Your task to perform on an android device: check the backup settings in the google photos Image 0: 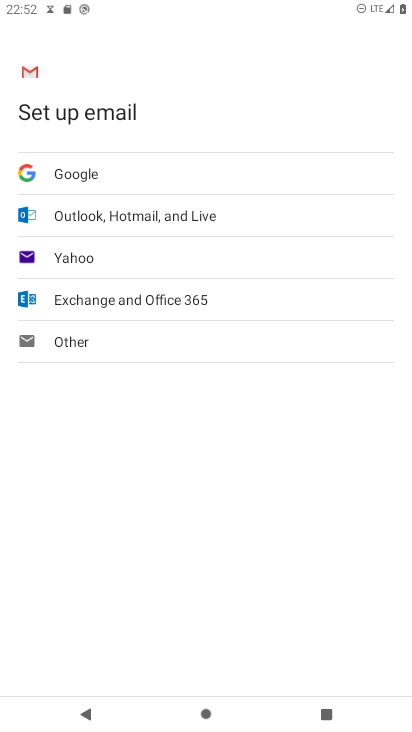
Step 0: press home button
Your task to perform on an android device: check the backup settings in the google photos Image 1: 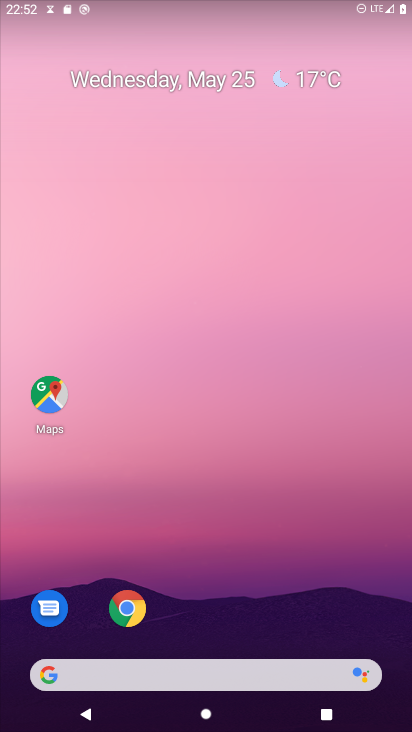
Step 1: drag from (318, 549) to (202, 46)
Your task to perform on an android device: check the backup settings in the google photos Image 2: 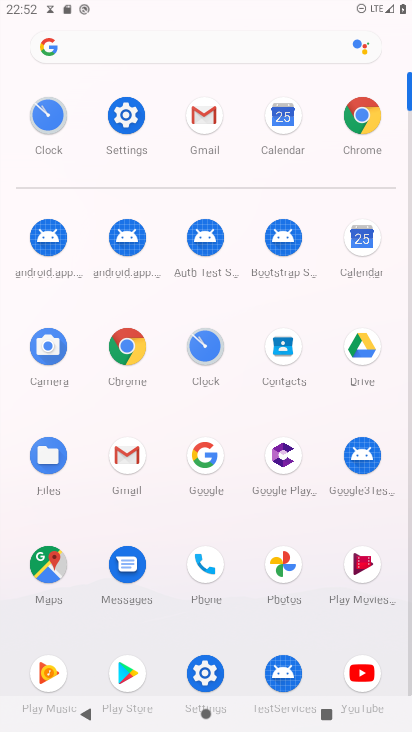
Step 2: click (281, 553)
Your task to perform on an android device: check the backup settings in the google photos Image 3: 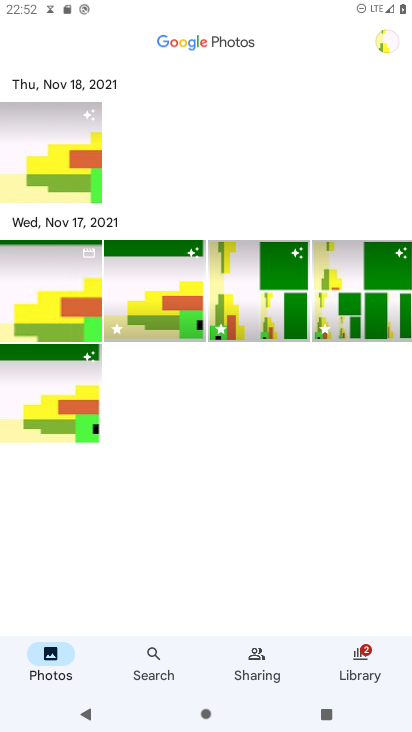
Step 3: click (390, 41)
Your task to perform on an android device: check the backup settings in the google photos Image 4: 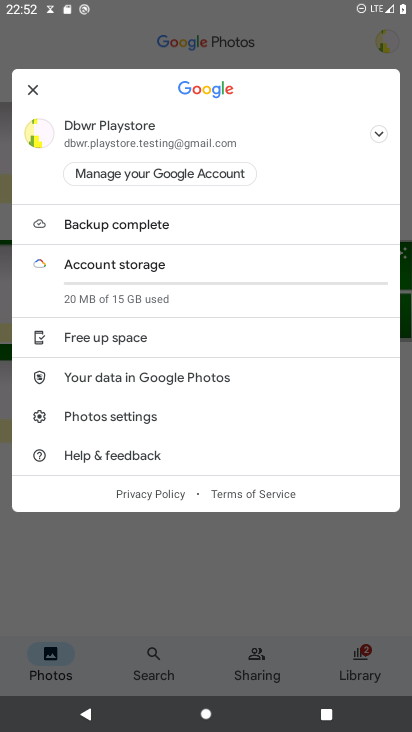
Step 4: click (140, 421)
Your task to perform on an android device: check the backup settings in the google photos Image 5: 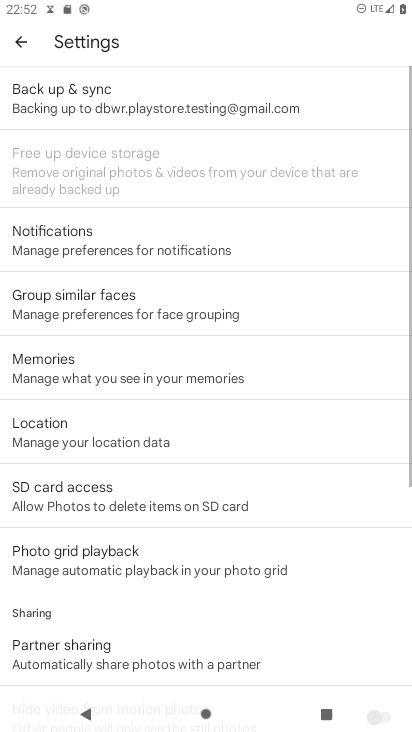
Step 5: click (117, 90)
Your task to perform on an android device: check the backup settings in the google photos Image 6: 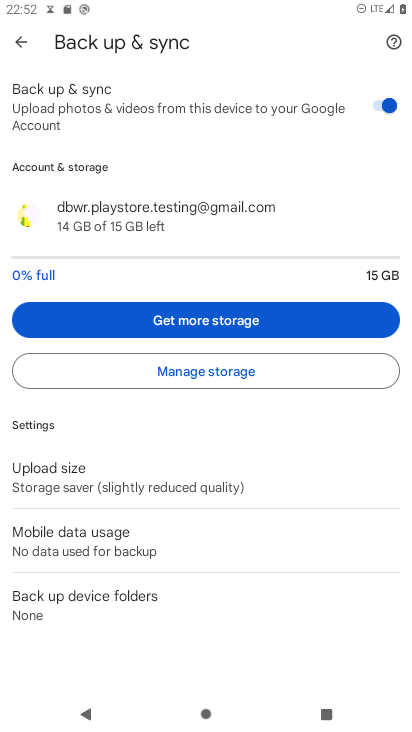
Step 6: task complete